Your task to perform on an android device: add a contact Image 0: 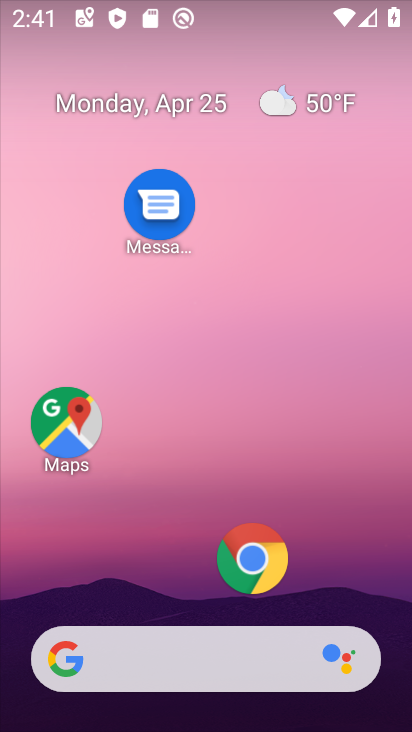
Step 0: press home button
Your task to perform on an android device: add a contact Image 1: 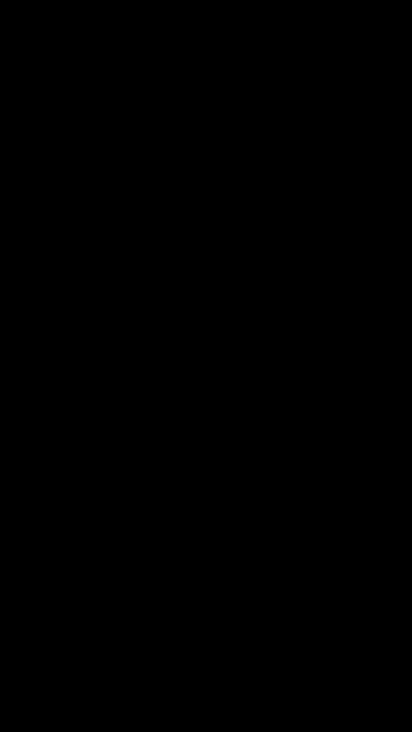
Step 1: drag from (240, 515) to (333, 8)
Your task to perform on an android device: add a contact Image 2: 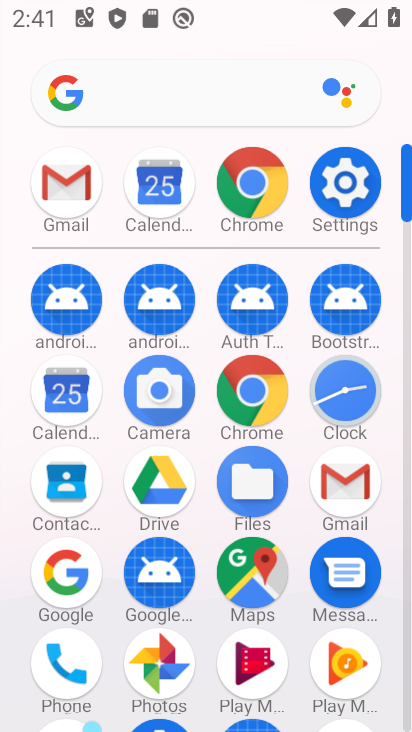
Step 2: click (61, 499)
Your task to perform on an android device: add a contact Image 3: 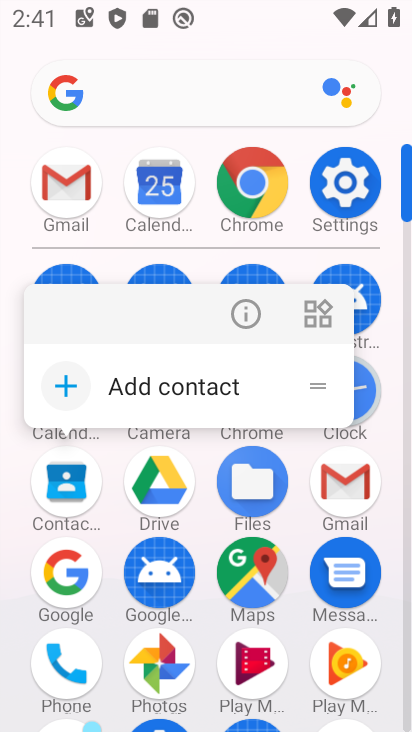
Step 3: click (61, 480)
Your task to perform on an android device: add a contact Image 4: 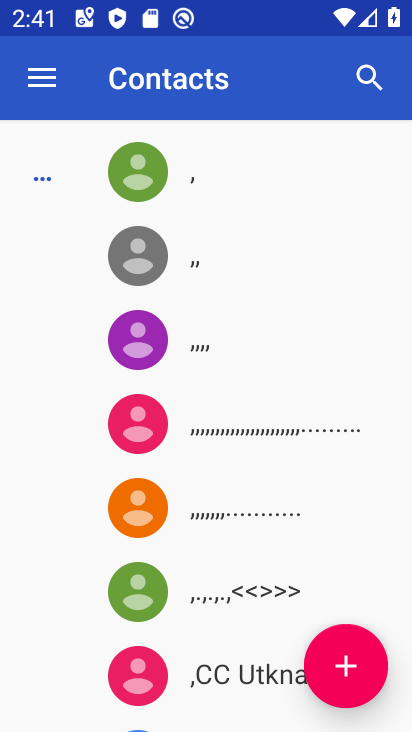
Step 4: click (353, 655)
Your task to perform on an android device: add a contact Image 5: 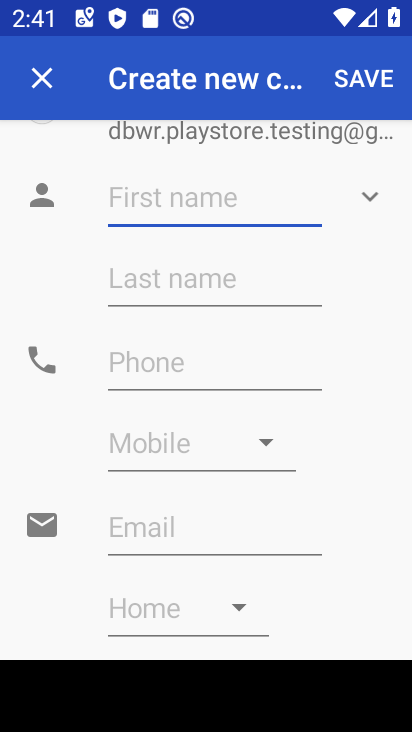
Step 5: type "kinstle"
Your task to perform on an android device: add a contact Image 6: 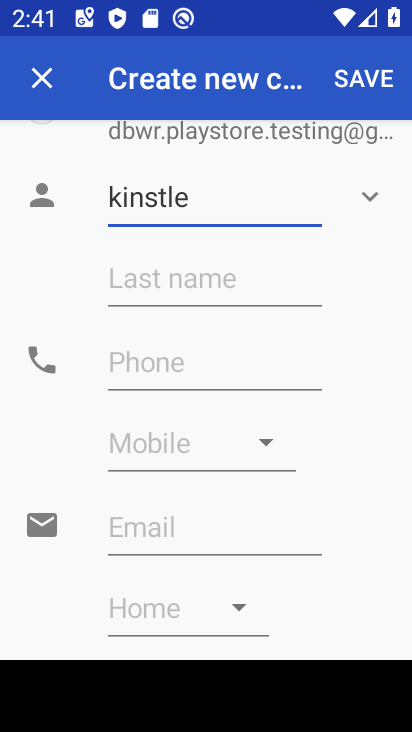
Step 6: click (371, 74)
Your task to perform on an android device: add a contact Image 7: 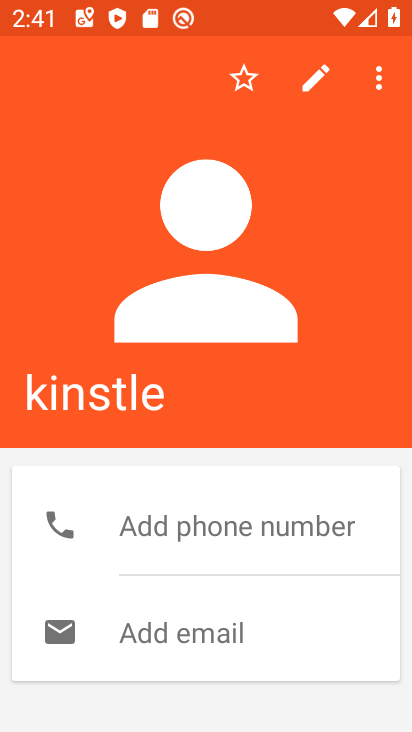
Step 7: task complete